Your task to perform on an android device: What's on my calendar tomorrow? Image 0: 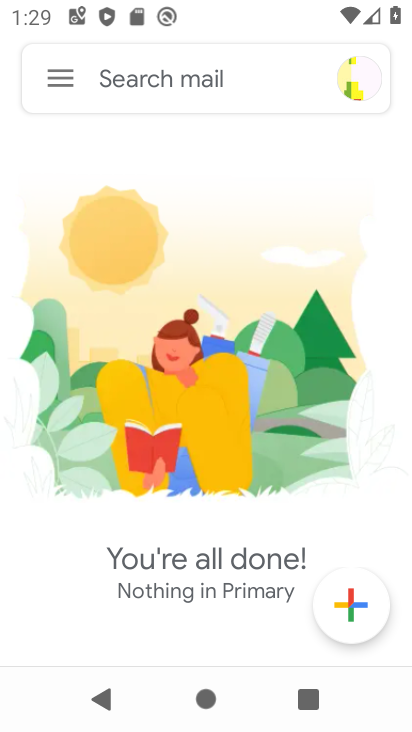
Step 0: press home button
Your task to perform on an android device: What's on my calendar tomorrow? Image 1: 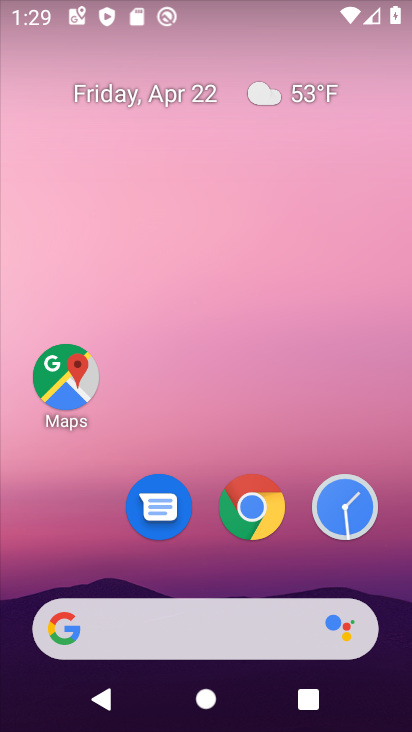
Step 1: drag from (280, 582) to (287, 153)
Your task to perform on an android device: What's on my calendar tomorrow? Image 2: 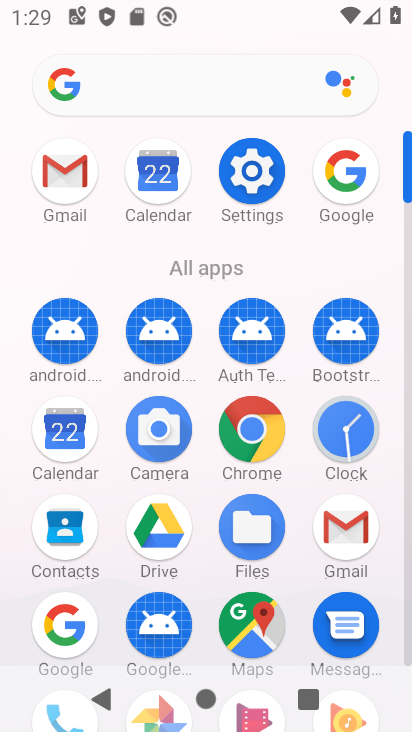
Step 2: click (159, 189)
Your task to perform on an android device: What's on my calendar tomorrow? Image 3: 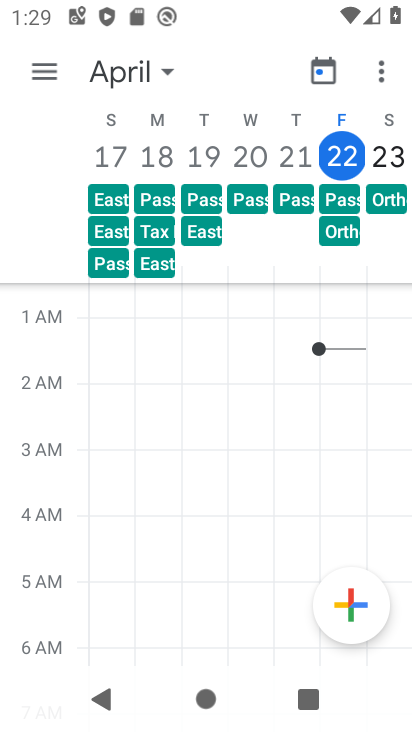
Step 3: click (50, 74)
Your task to perform on an android device: What's on my calendar tomorrow? Image 4: 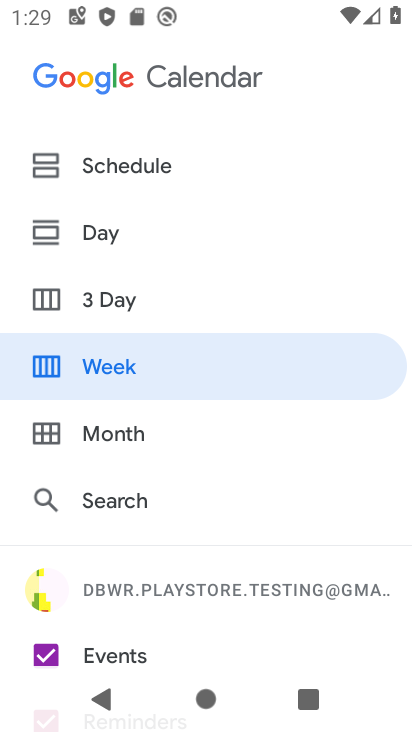
Step 4: click (100, 238)
Your task to perform on an android device: What's on my calendar tomorrow? Image 5: 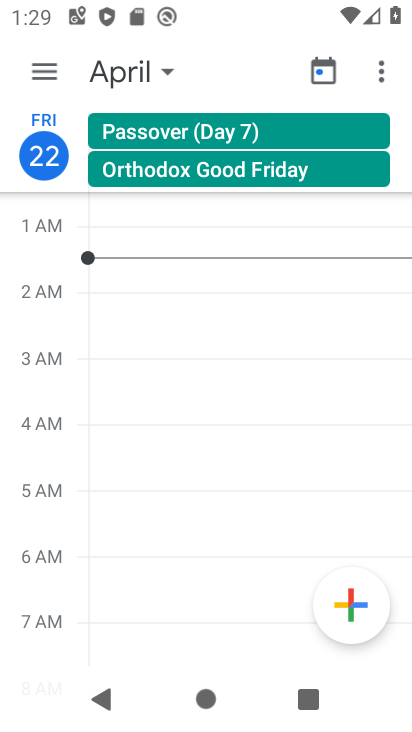
Step 5: click (137, 74)
Your task to perform on an android device: What's on my calendar tomorrow? Image 6: 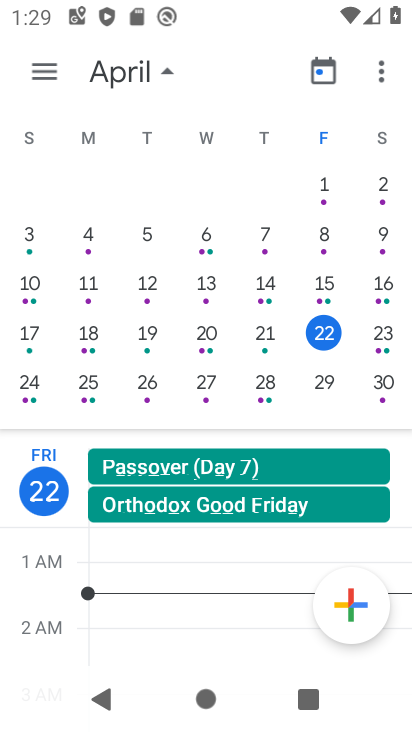
Step 6: click (386, 334)
Your task to perform on an android device: What's on my calendar tomorrow? Image 7: 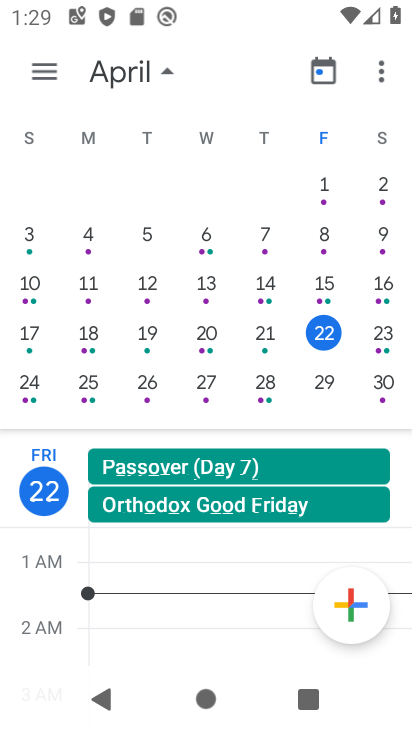
Step 7: click (386, 334)
Your task to perform on an android device: What's on my calendar tomorrow? Image 8: 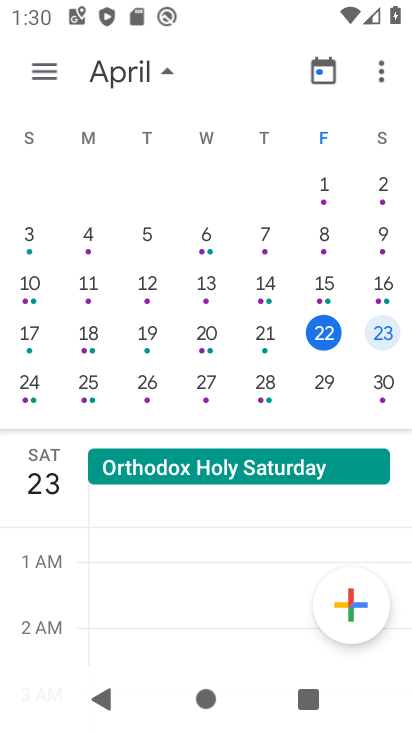
Step 8: task complete